Your task to perform on an android device: read, delete, or share a saved page in the chrome app Image 0: 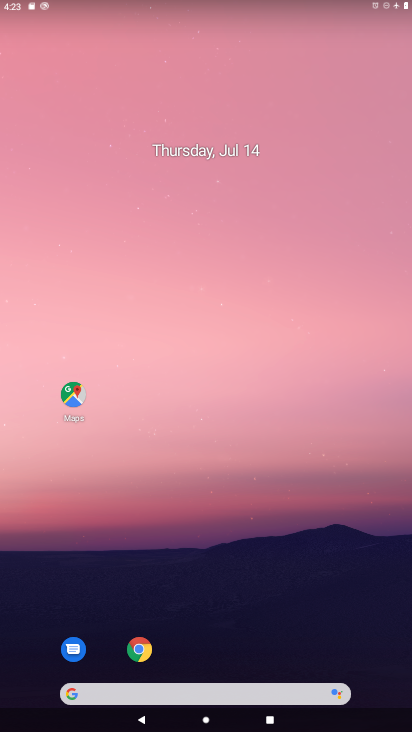
Step 0: drag from (229, 621) to (402, 306)
Your task to perform on an android device: read, delete, or share a saved page in the chrome app Image 1: 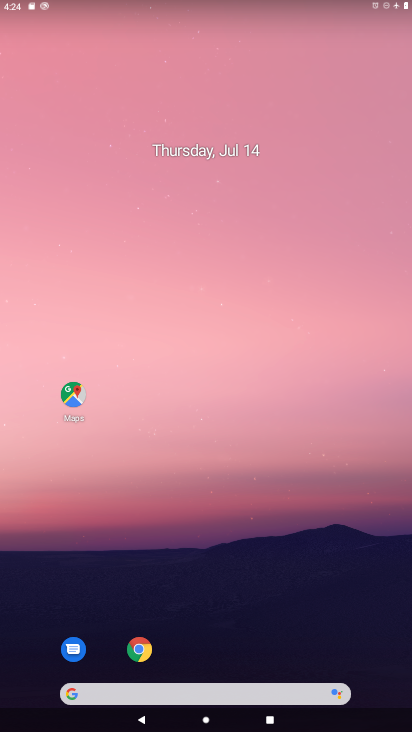
Step 1: click (150, 652)
Your task to perform on an android device: read, delete, or share a saved page in the chrome app Image 2: 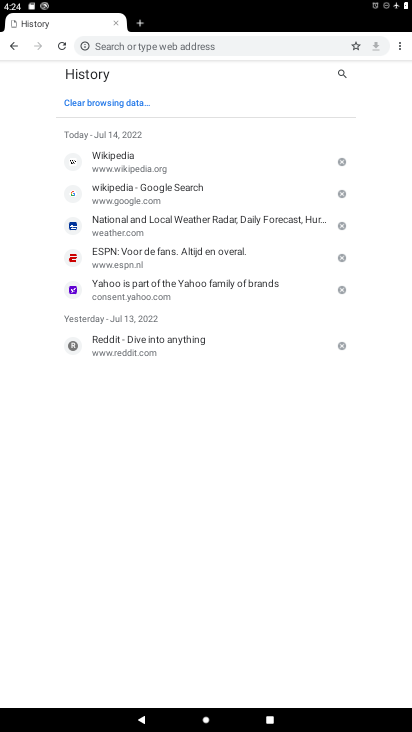
Step 2: click (400, 45)
Your task to perform on an android device: read, delete, or share a saved page in the chrome app Image 3: 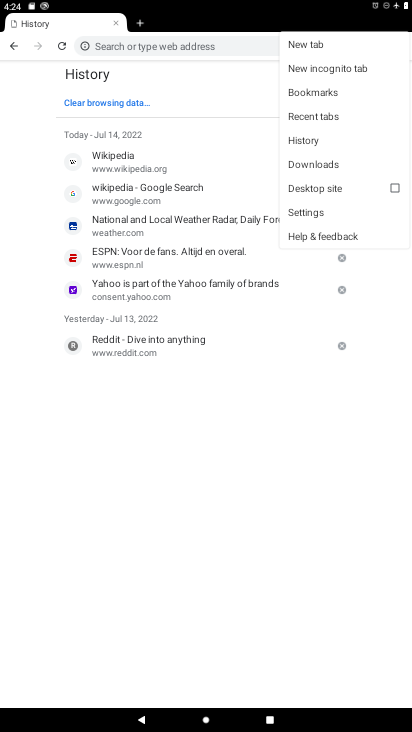
Step 3: click (321, 164)
Your task to perform on an android device: read, delete, or share a saved page in the chrome app Image 4: 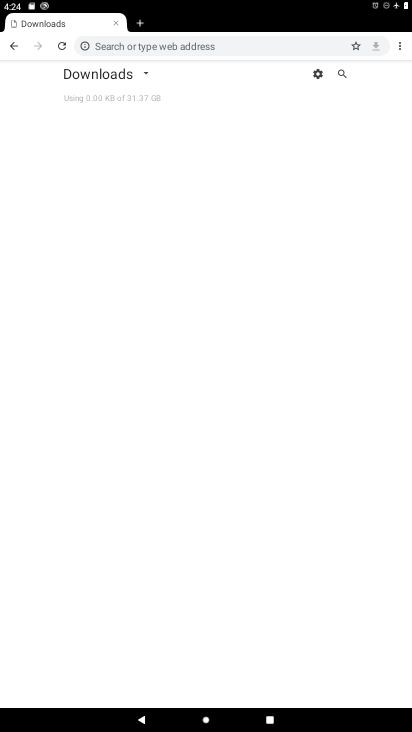
Step 4: task complete